Your task to perform on an android device: find snoozed emails in the gmail app Image 0: 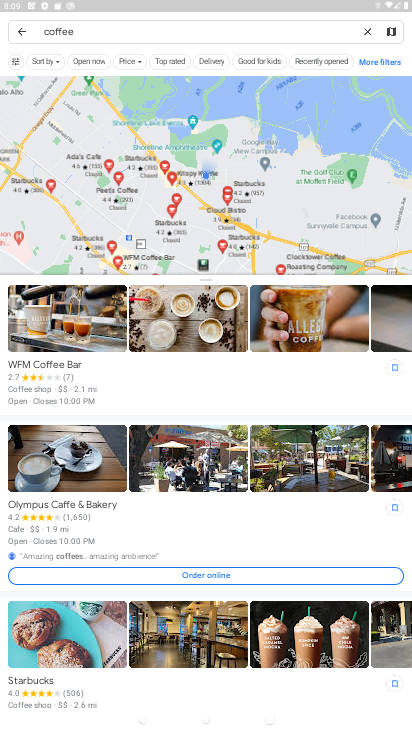
Step 0: press home button
Your task to perform on an android device: find snoozed emails in the gmail app Image 1: 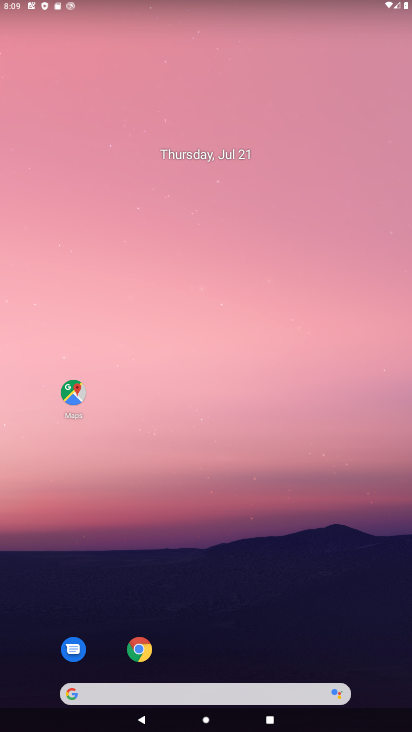
Step 1: drag from (240, 556) to (240, 71)
Your task to perform on an android device: find snoozed emails in the gmail app Image 2: 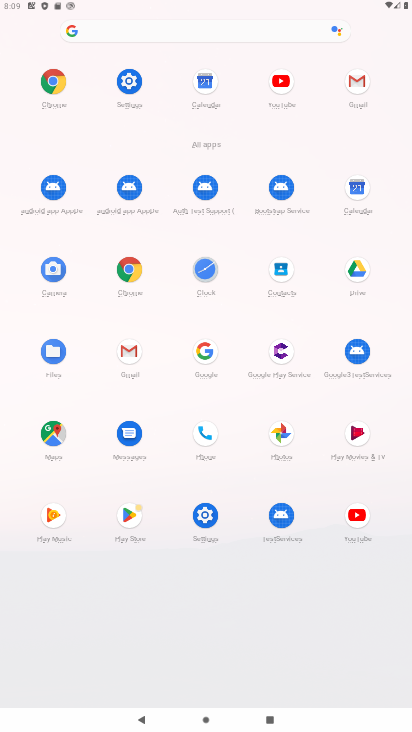
Step 2: click (125, 351)
Your task to perform on an android device: find snoozed emails in the gmail app Image 3: 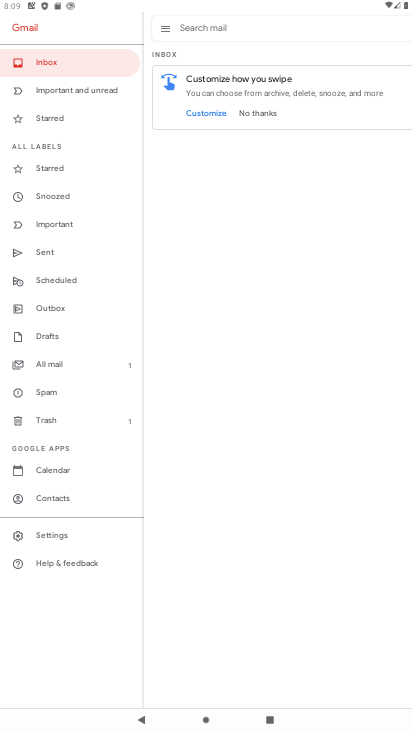
Step 3: click (50, 194)
Your task to perform on an android device: find snoozed emails in the gmail app Image 4: 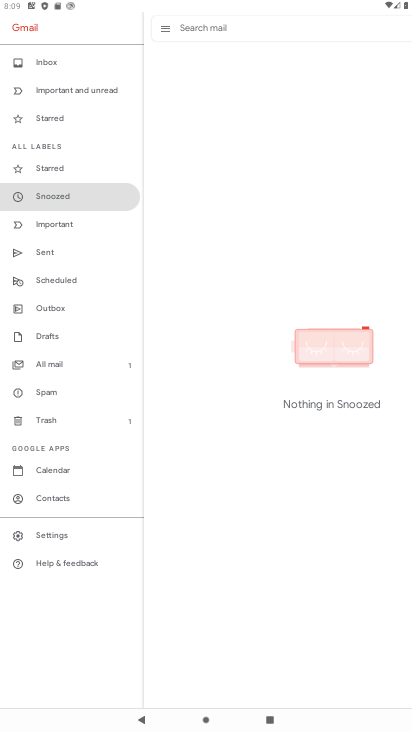
Step 4: task complete